Your task to perform on an android device: Go to Google Image 0: 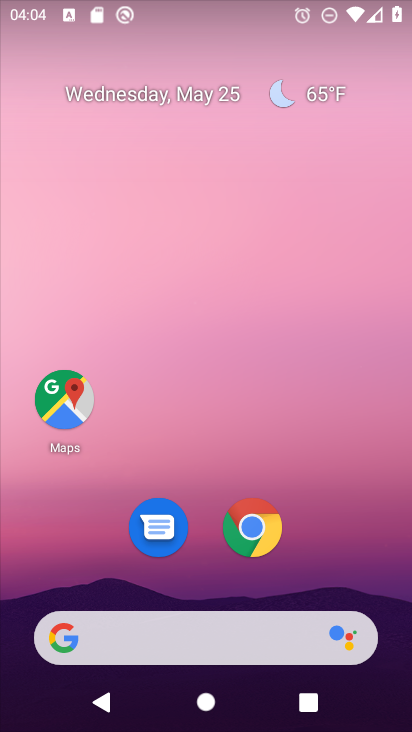
Step 0: drag from (385, 633) to (316, 13)
Your task to perform on an android device: Go to Google Image 1: 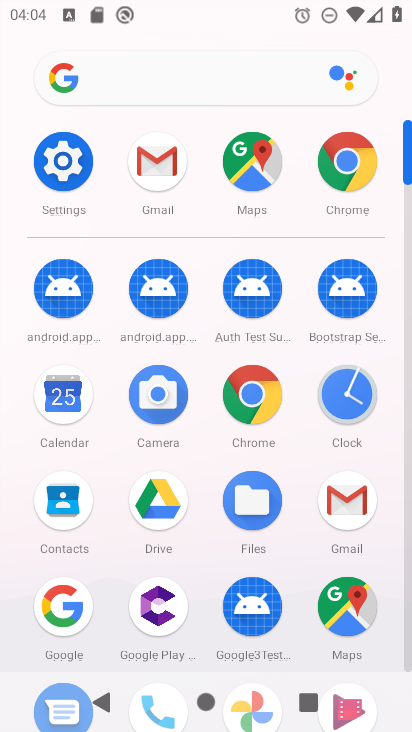
Step 1: click (260, 392)
Your task to perform on an android device: Go to Google Image 2: 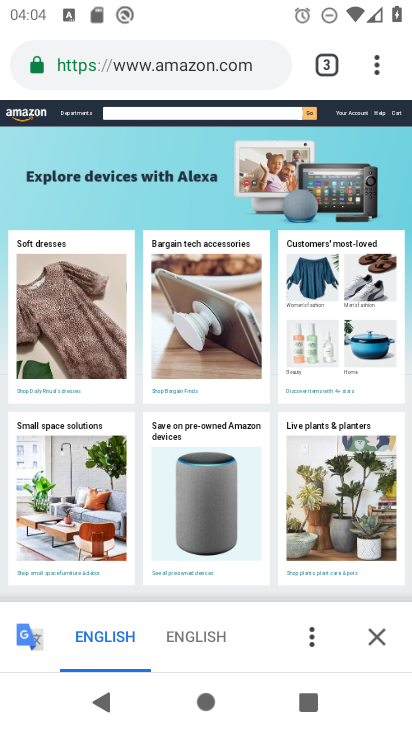
Step 2: task complete